Your task to perform on an android device: Open Amazon Image 0: 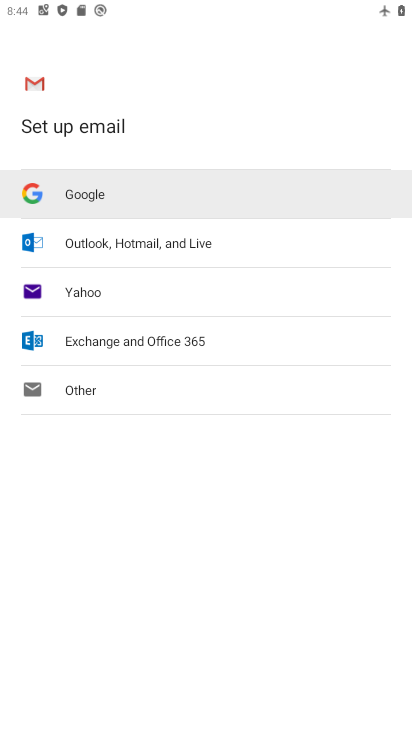
Step 0: press home button
Your task to perform on an android device: Open Amazon Image 1: 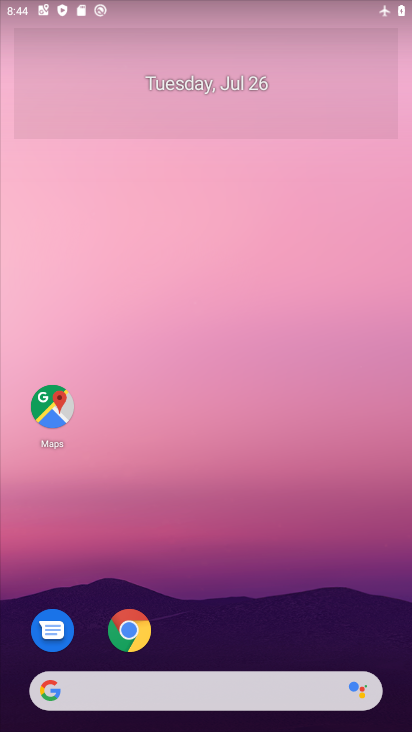
Step 1: click (222, 692)
Your task to perform on an android device: Open Amazon Image 2: 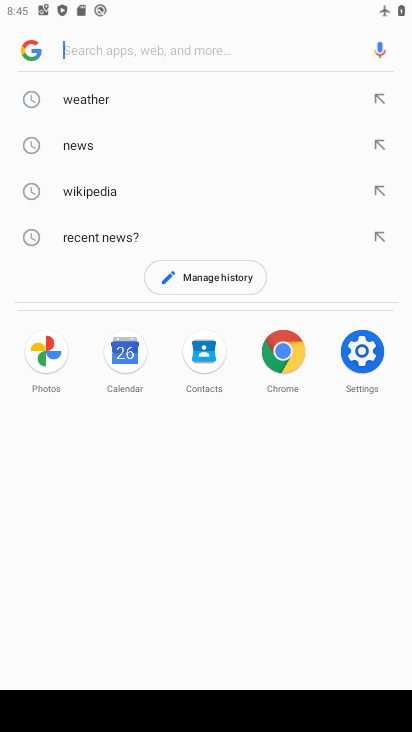
Step 2: type "amazone"
Your task to perform on an android device: Open Amazon Image 3: 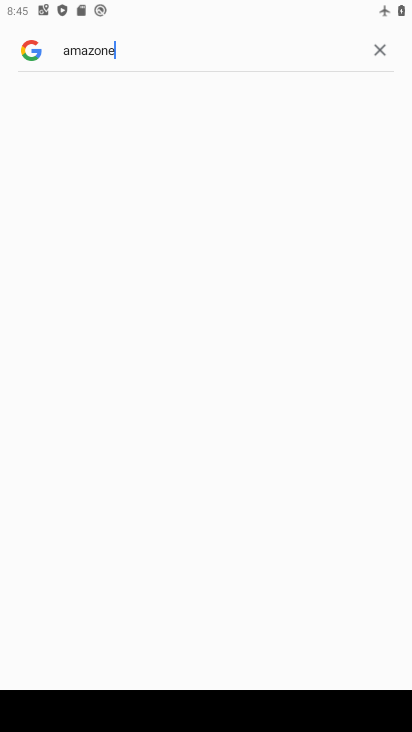
Step 3: task complete